Your task to perform on an android device: Open ESPN.com Image 0: 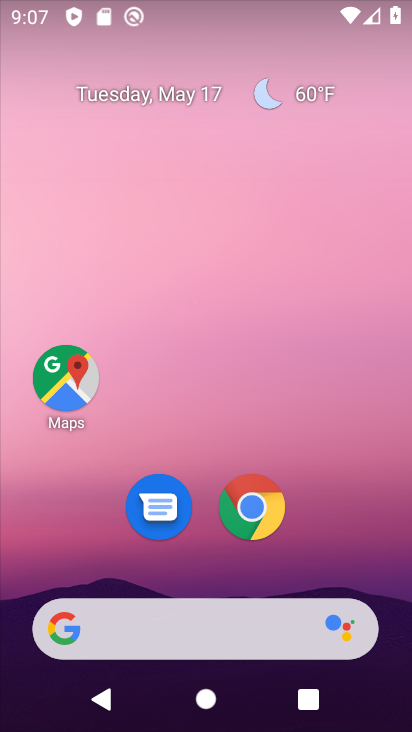
Step 0: drag from (261, 698) to (147, 202)
Your task to perform on an android device: Open ESPN.com Image 1: 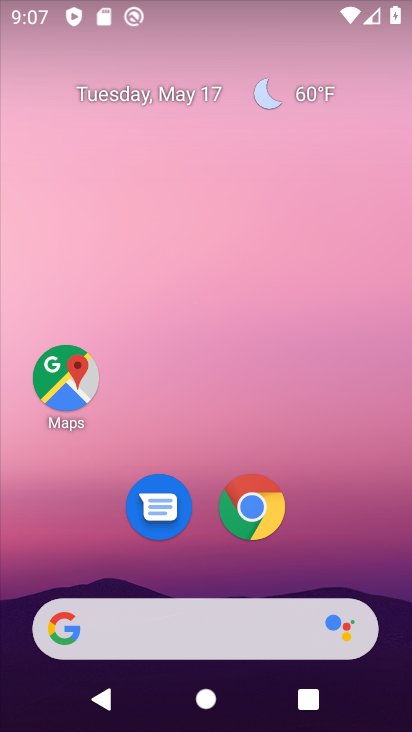
Step 1: drag from (276, 687) to (199, 195)
Your task to perform on an android device: Open ESPN.com Image 2: 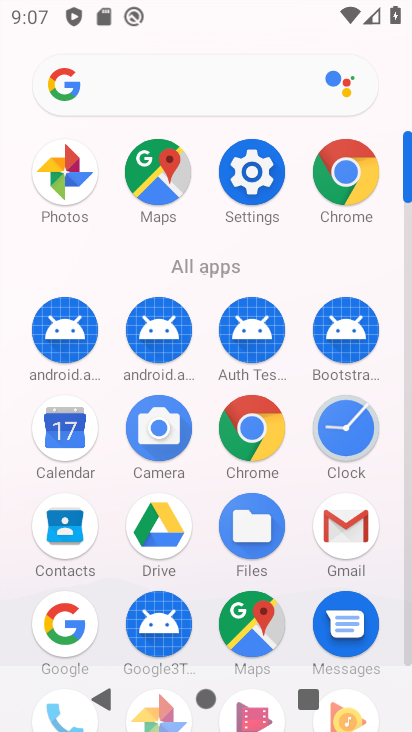
Step 2: click (351, 183)
Your task to perform on an android device: Open ESPN.com Image 3: 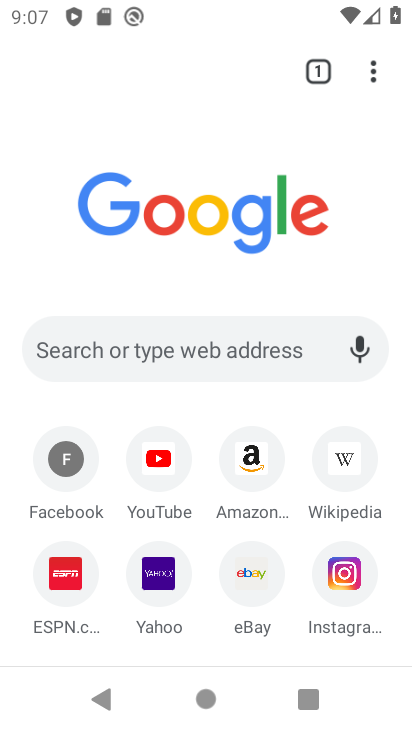
Step 3: click (57, 572)
Your task to perform on an android device: Open ESPN.com Image 4: 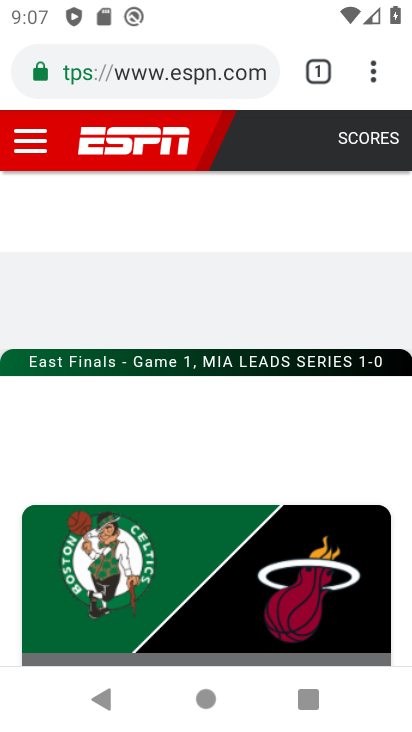
Step 4: task complete